Your task to perform on an android device: Go to accessibility settings Image 0: 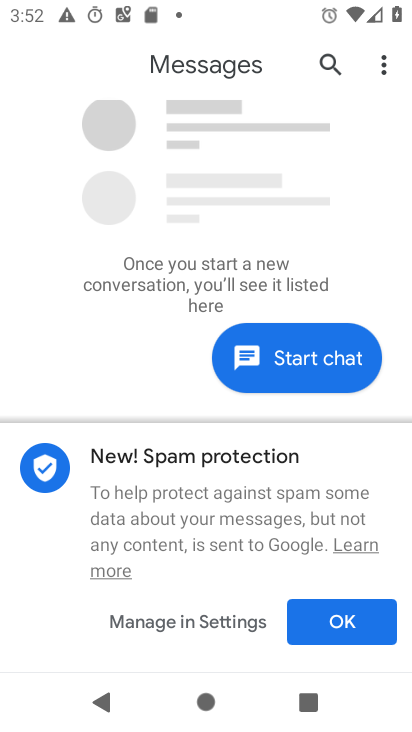
Step 0: press home button
Your task to perform on an android device: Go to accessibility settings Image 1: 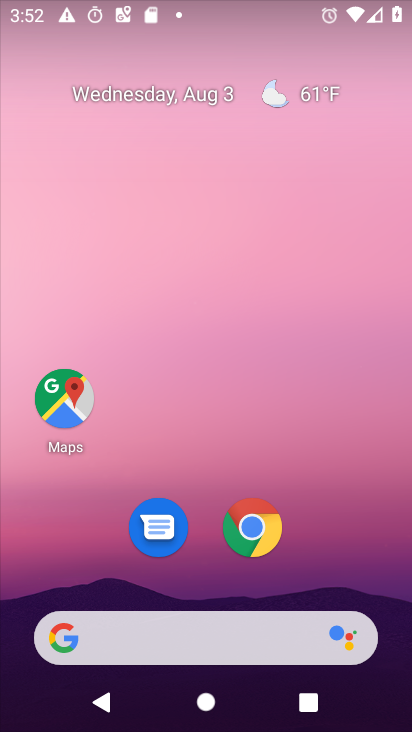
Step 1: drag from (331, 531) to (328, 108)
Your task to perform on an android device: Go to accessibility settings Image 2: 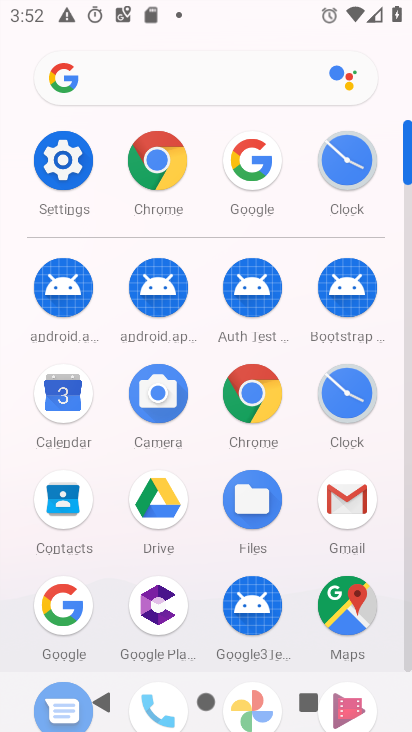
Step 2: click (67, 151)
Your task to perform on an android device: Go to accessibility settings Image 3: 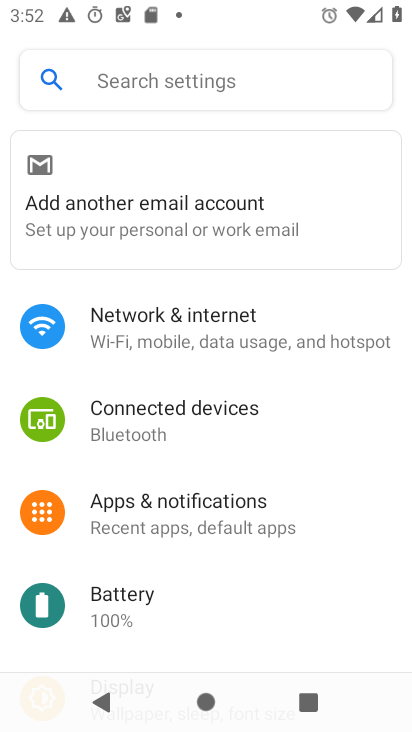
Step 3: drag from (331, 574) to (359, 96)
Your task to perform on an android device: Go to accessibility settings Image 4: 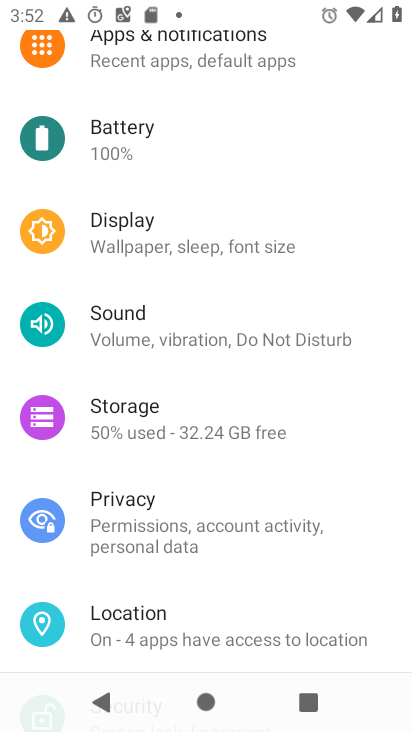
Step 4: drag from (321, 464) to (357, 143)
Your task to perform on an android device: Go to accessibility settings Image 5: 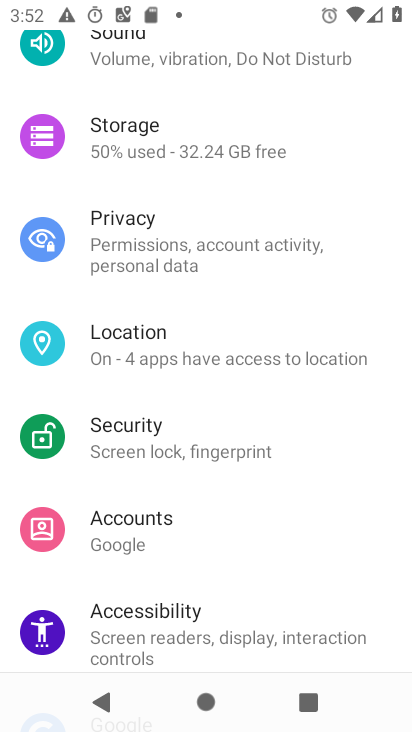
Step 5: click (172, 619)
Your task to perform on an android device: Go to accessibility settings Image 6: 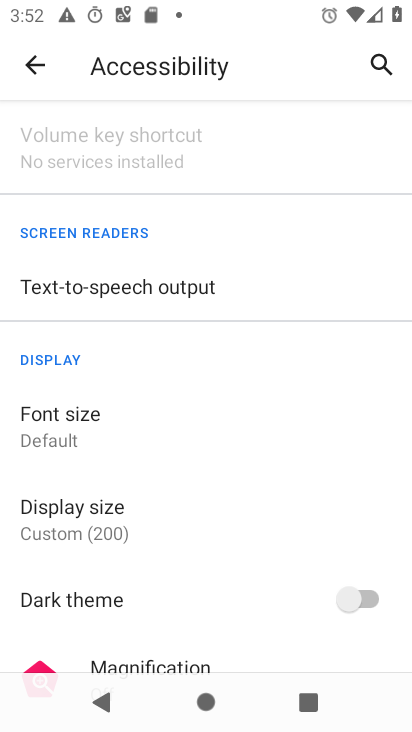
Step 6: task complete